Your task to perform on an android device: toggle location history Image 0: 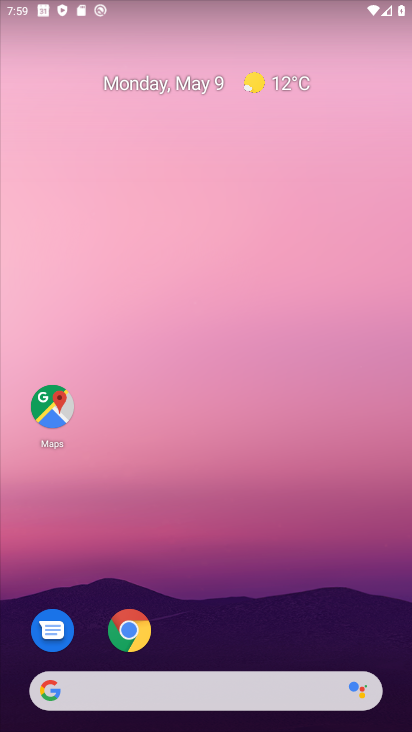
Step 0: drag from (201, 660) to (224, 202)
Your task to perform on an android device: toggle location history Image 1: 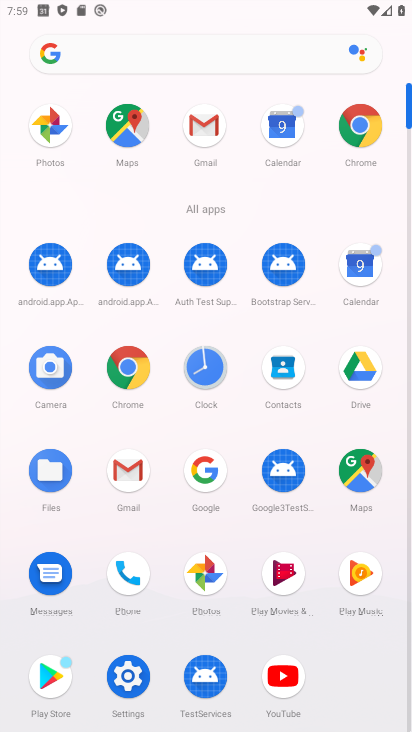
Step 1: click (120, 685)
Your task to perform on an android device: toggle location history Image 2: 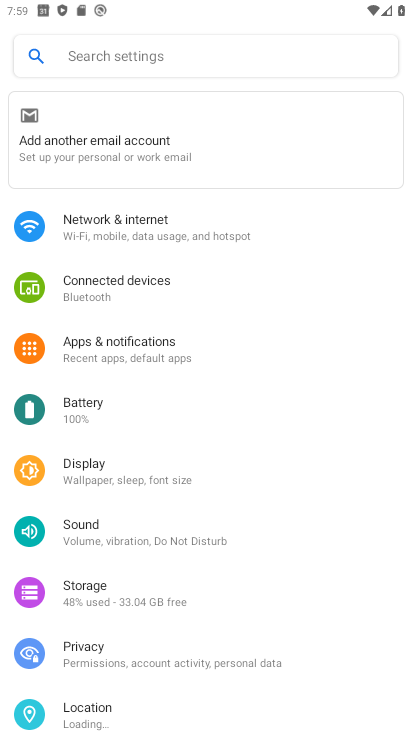
Step 2: click (99, 712)
Your task to perform on an android device: toggle location history Image 3: 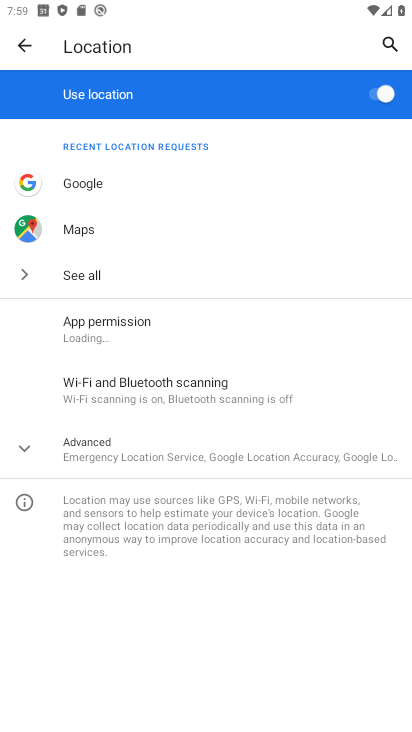
Step 3: click (143, 447)
Your task to perform on an android device: toggle location history Image 4: 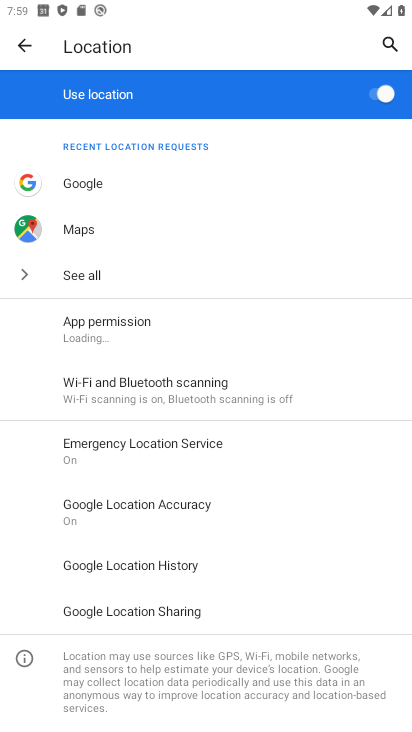
Step 4: click (176, 562)
Your task to perform on an android device: toggle location history Image 5: 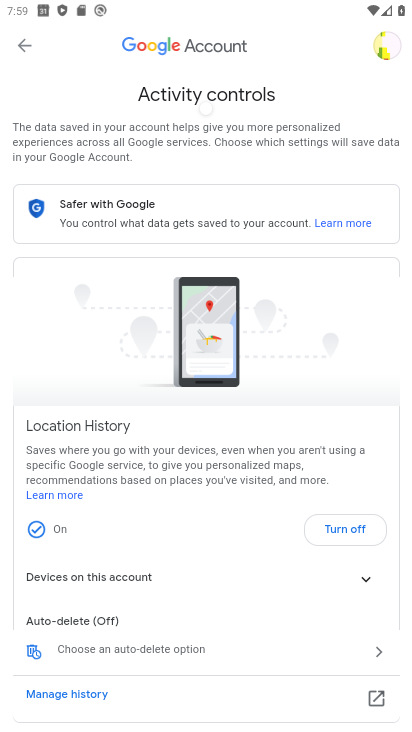
Step 5: click (338, 525)
Your task to perform on an android device: toggle location history Image 6: 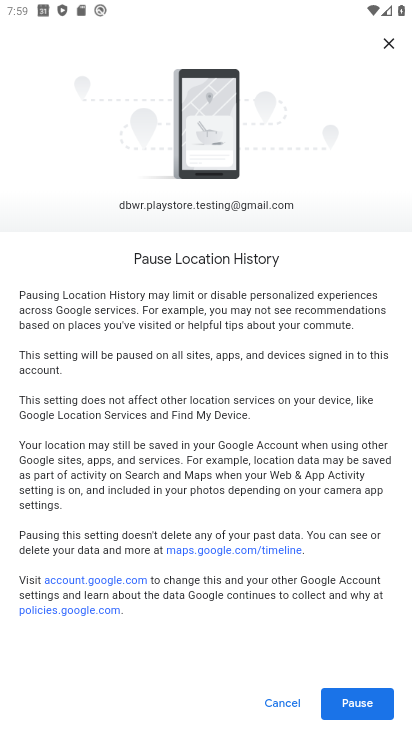
Step 6: click (374, 702)
Your task to perform on an android device: toggle location history Image 7: 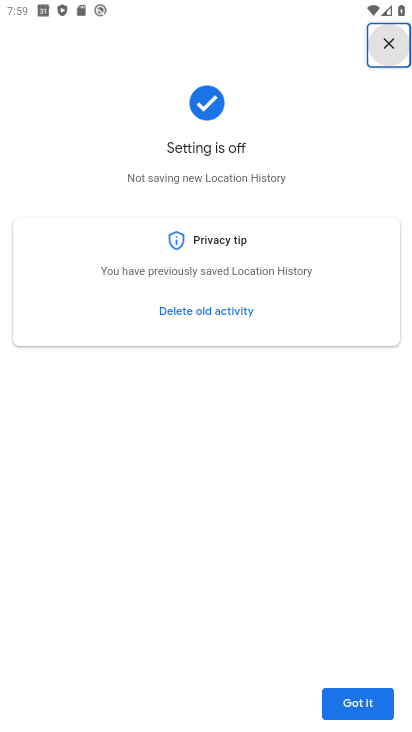
Step 7: click (371, 699)
Your task to perform on an android device: toggle location history Image 8: 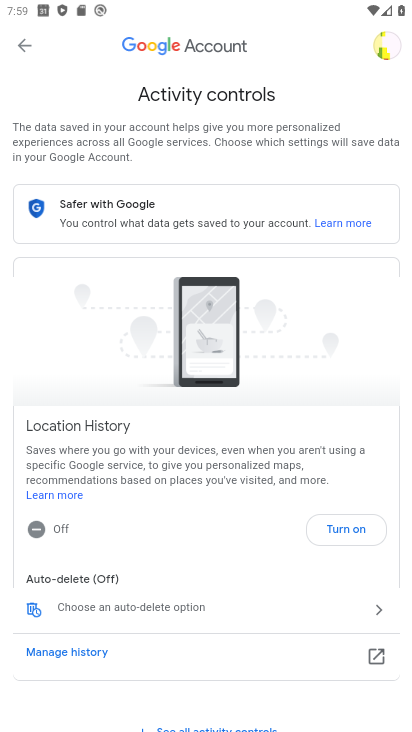
Step 8: task complete